Your task to perform on an android device: change notifications settings Image 0: 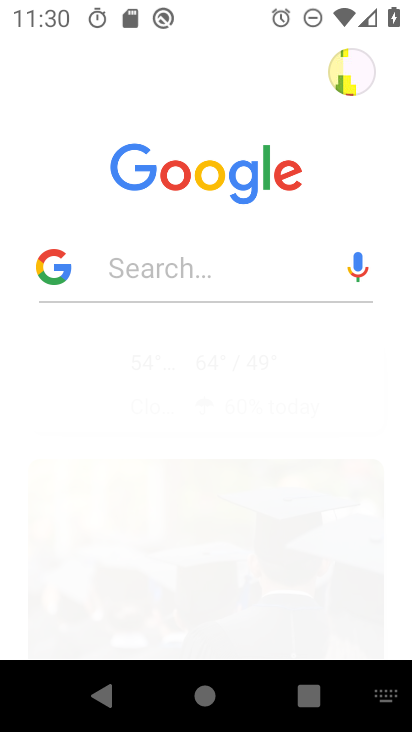
Step 0: press home button
Your task to perform on an android device: change notifications settings Image 1: 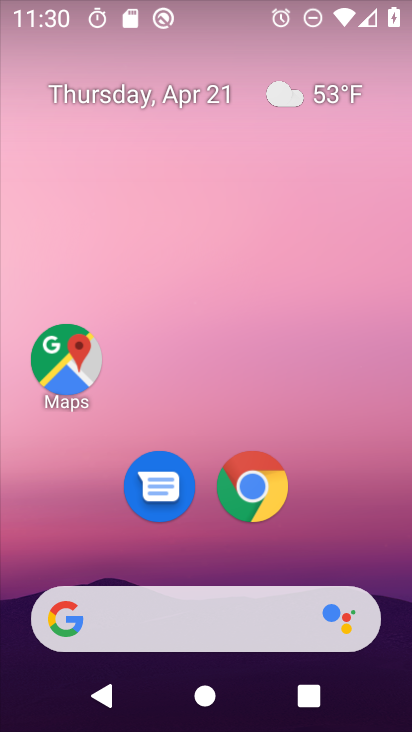
Step 1: click (378, 63)
Your task to perform on an android device: change notifications settings Image 2: 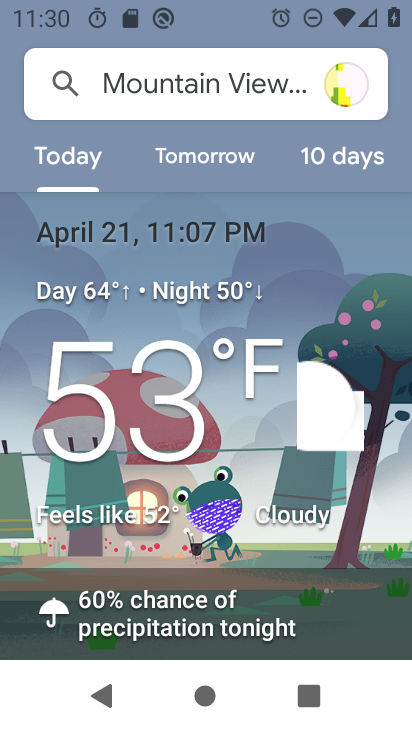
Step 2: press home button
Your task to perform on an android device: change notifications settings Image 3: 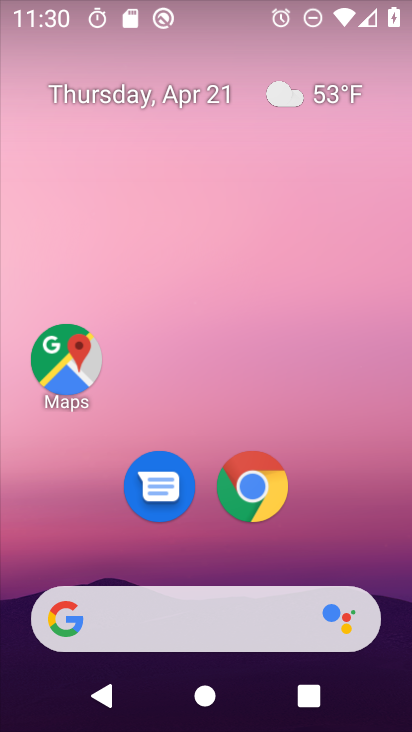
Step 3: drag from (375, 422) to (366, 209)
Your task to perform on an android device: change notifications settings Image 4: 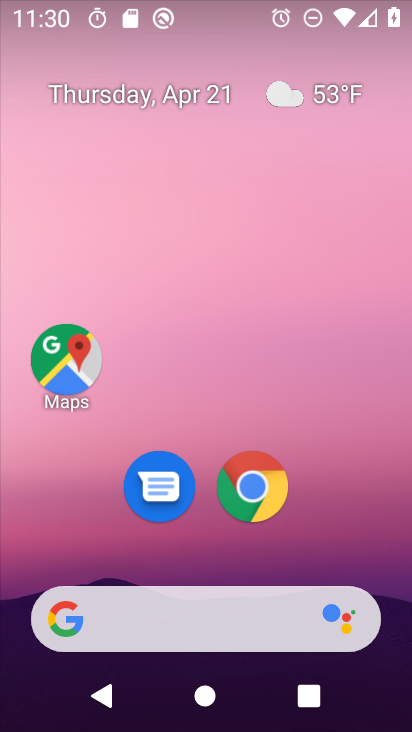
Step 4: drag from (398, 604) to (343, 159)
Your task to perform on an android device: change notifications settings Image 5: 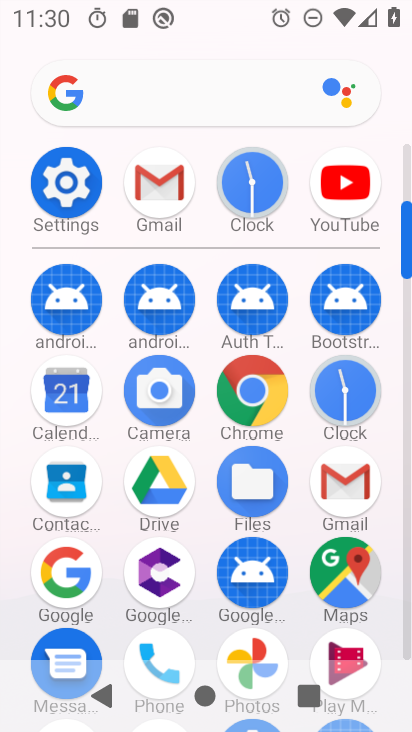
Step 5: click (54, 186)
Your task to perform on an android device: change notifications settings Image 6: 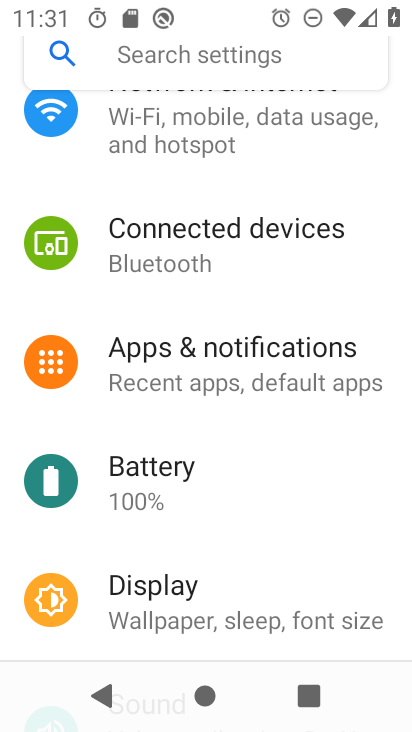
Step 6: click (177, 360)
Your task to perform on an android device: change notifications settings Image 7: 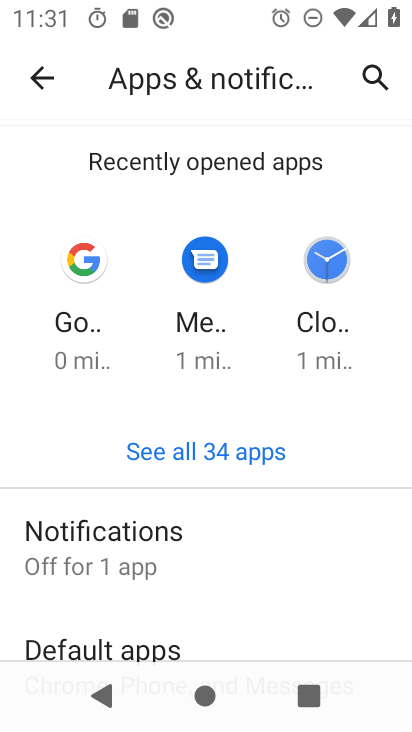
Step 7: click (114, 535)
Your task to perform on an android device: change notifications settings Image 8: 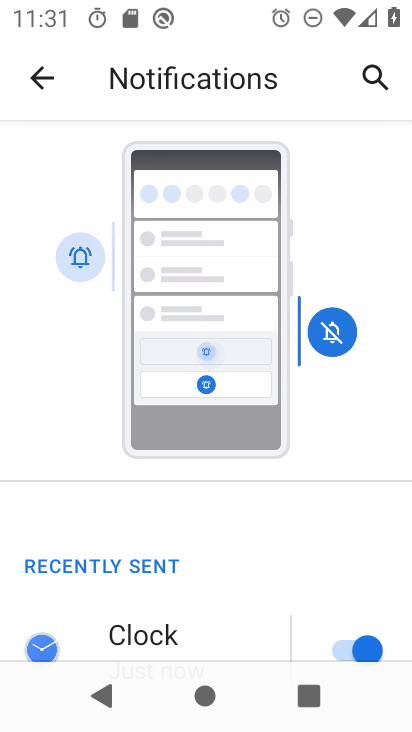
Step 8: drag from (246, 474) to (255, 268)
Your task to perform on an android device: change notifications settings Image 9: 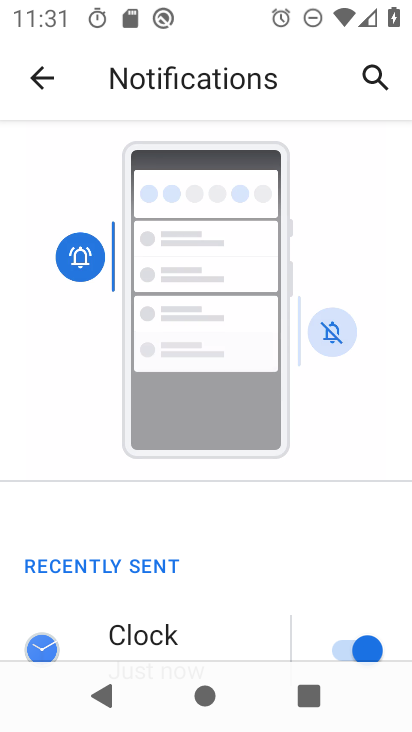
Step 9: drag from (280, 407) to (290, 267)
Your task to perform on an android device: change notifications settings Image 10: 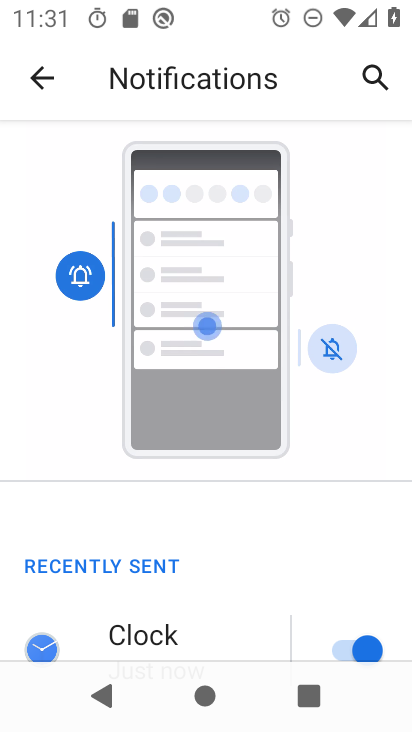
Step 10: drag from (236, 444) to (245, 265)
Your task to perform on an android device: change notifications settings Image 11: 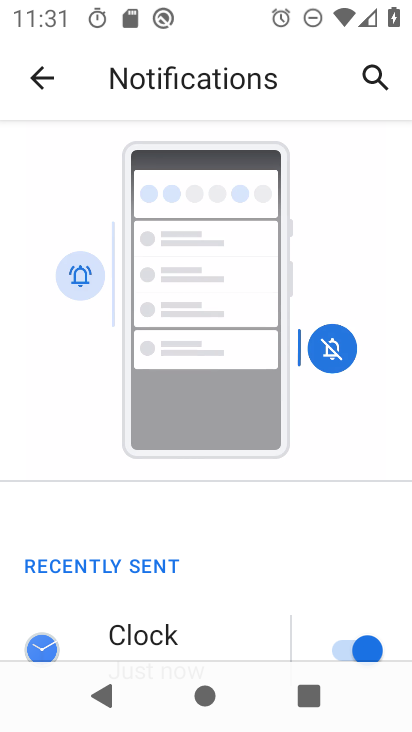
Step 11: drag from (258, 593) to (220, 281)
Your task to perform on an android device: change notifications settings Image 12: 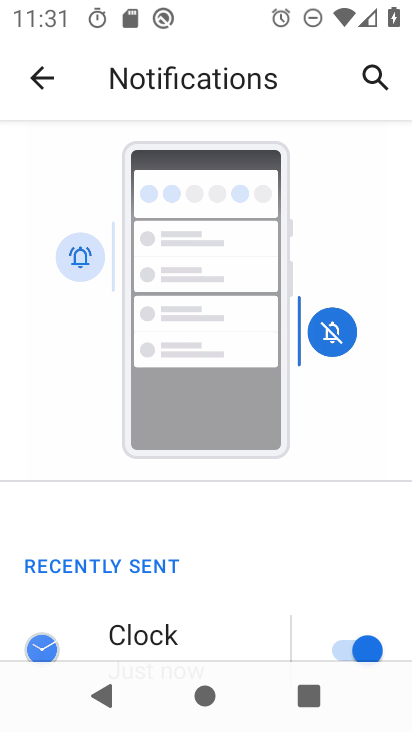
Step 12: drag from (266, 543) to (253, 359)
Your task to perform on an android device: change notifications settings Image 13: 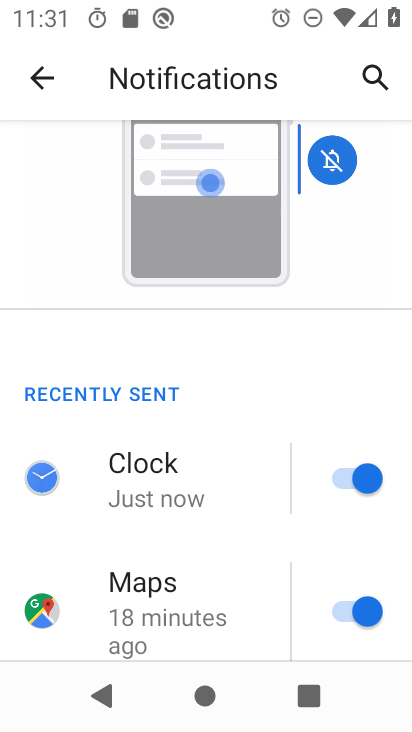
Step 13: drag from (248, 612) to (237, 285)
Your task to perform on an android device: change notifications settings Image 14: 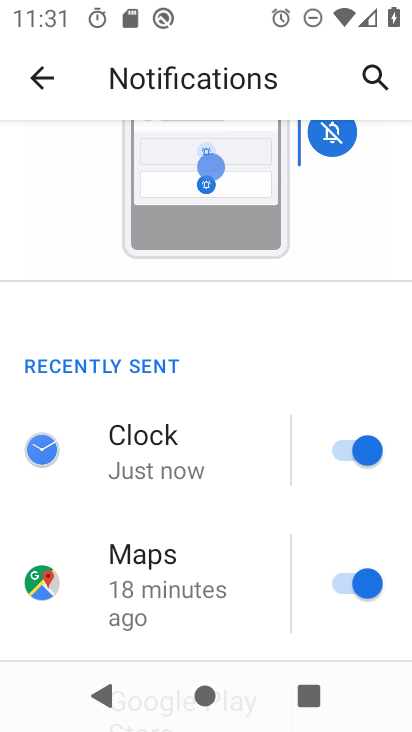
Step 14: drag from (246, 499) to (246, 263)
Your task to perform on an android device: change notifications settings Image 15: 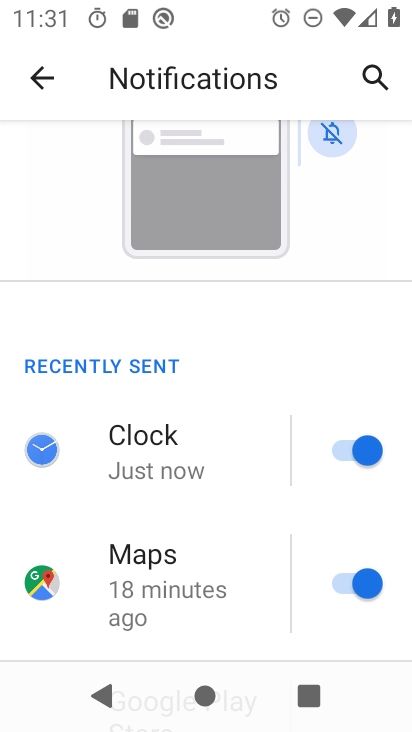
Step 15: drag from (282, 291) to (278, 247)
Your task to perform on an android device: change notifications settings Image 16: 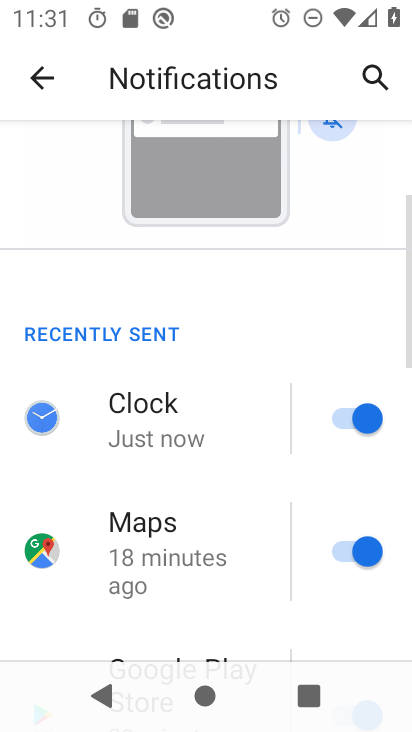
Step 16: drag from (273, 420) to (273, 357)
Your task to perform on an android device: change notifications settings Image 17: 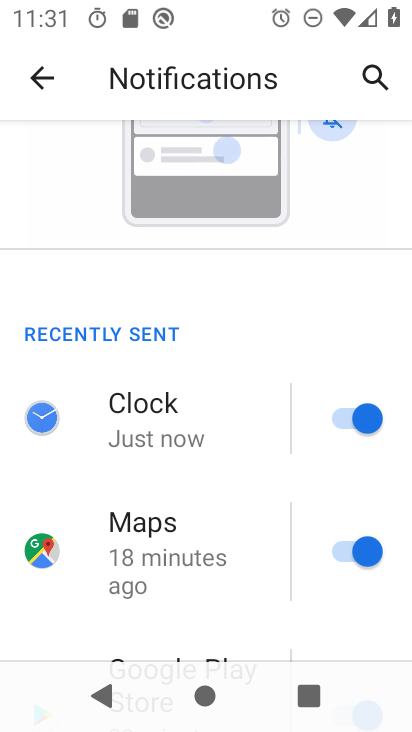
Step 17: drag from (283, 663) to (251, 340)
Your task to perform on an android device: change notifications settings Image 18: 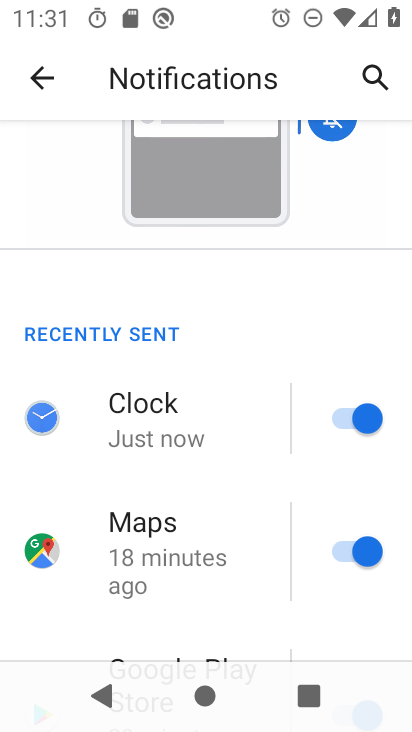
Step 18: drag from (277, 345) to (274, 294)
Your task to perform on an android device: change notifications settings Image 19: 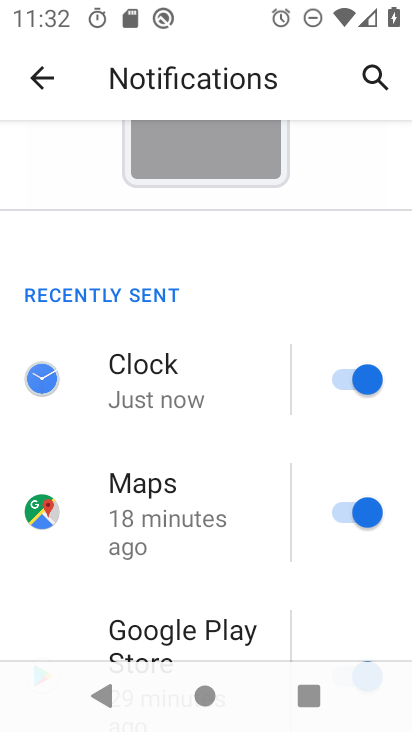
Step 19: drag from (267, 571) to (251, 230)
Your task to perform on an android device: change notifications settings Image 20: 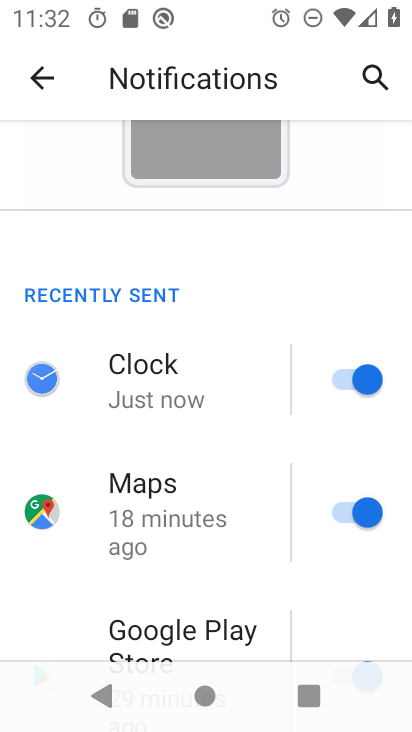
Step 20: click (283, 282)
Your task to perform on an android device: change notifications settings Image 21: 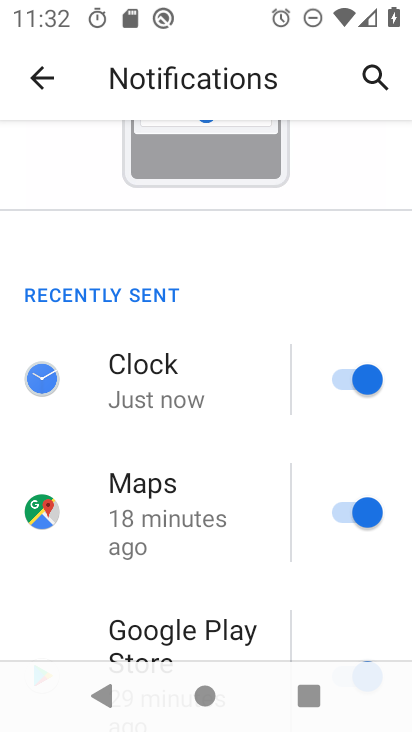
Step 21: click (339, 377)
Your task to perform on an android device: change notifications settings Image 22: 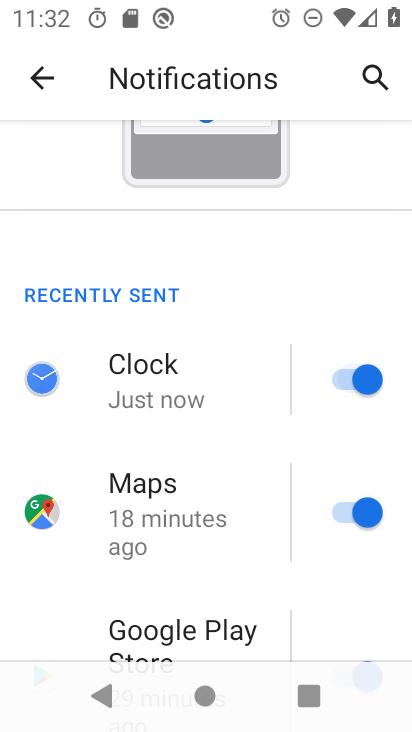
Step 22: click (337, 503)
Your task to perform on an android device: change notifications settings Image 23: 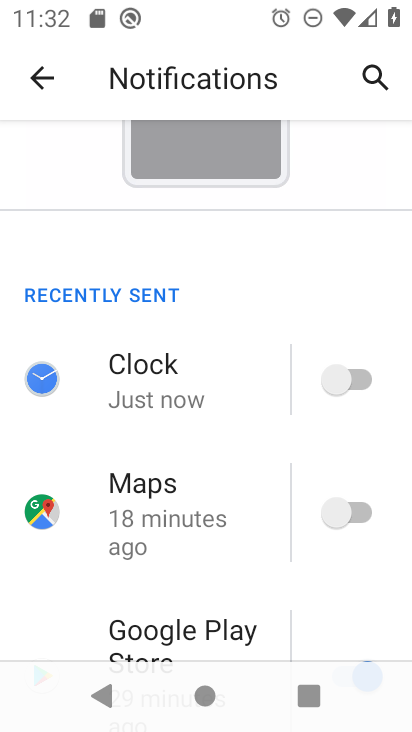
Step 23: drag from (269, 600) to (263, 267)
Your task to perform on an android device: change notifications settings Image 24: 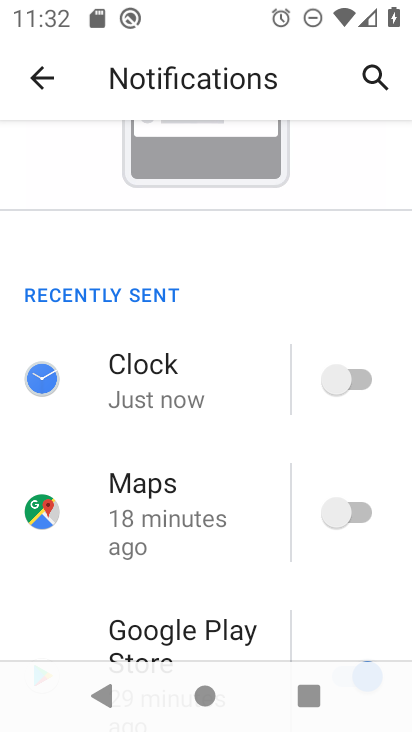
Step 24: drag from (277, 423) to (272, 373)
Your task to perform on an android device: change notifications settings Image 25: 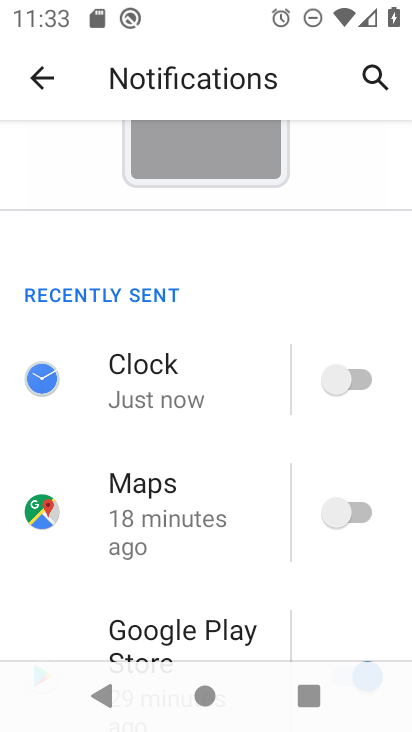
Step 25: drag from (254, 627) to (246, 269)
Your task to perform on an android device: change notifications settings Image 26: 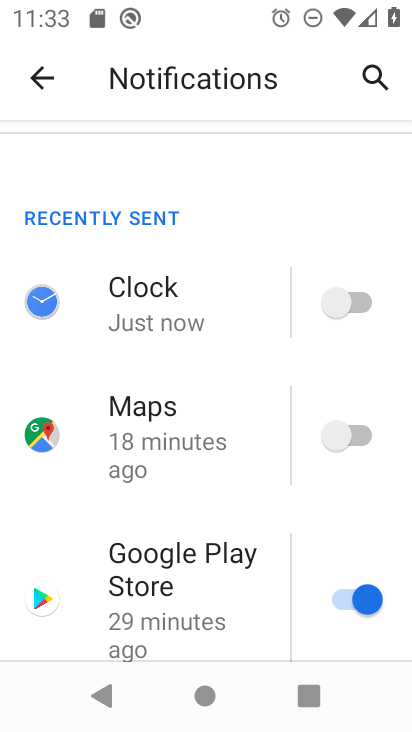
Step 26: click (336, 605)
Your task to perform on an android device: change notifications settings Image 27: 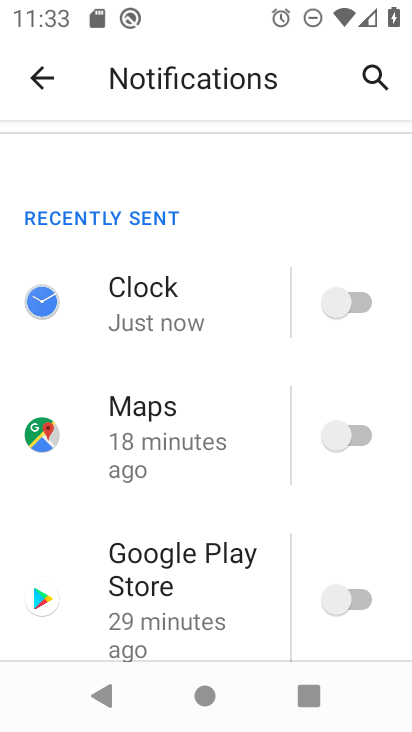
Step 27: task complete